Your task to perform on an android device: Open internet settings Image 0: 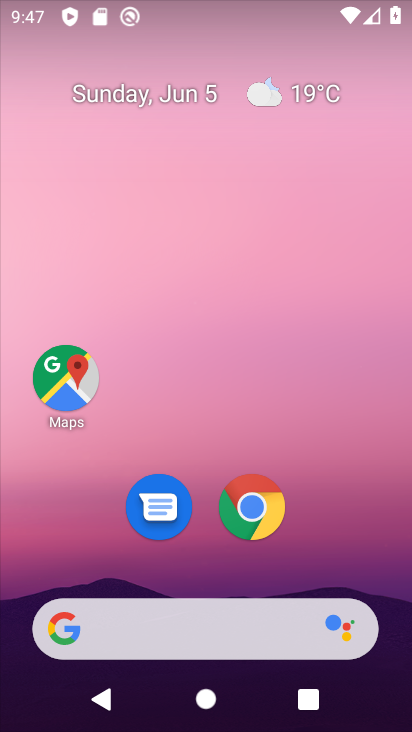
Step 0: drag from (235, 18) to (131, 443)
Your task to perform on an android device: Open internet settings Image 1: 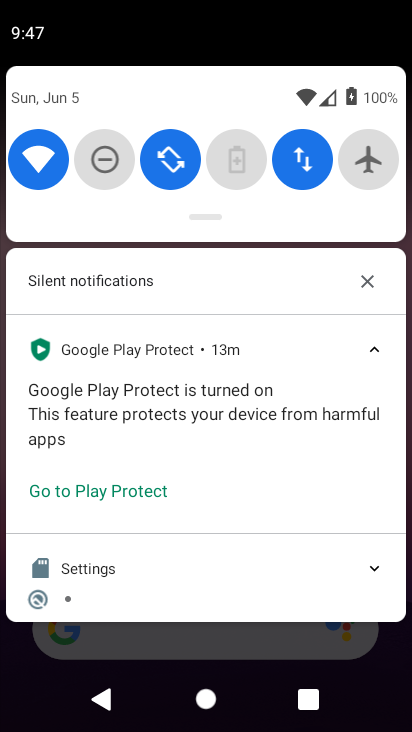
Step 1: click (304, 160)
Your task to perform on an android device: Open internet settings Image 2: 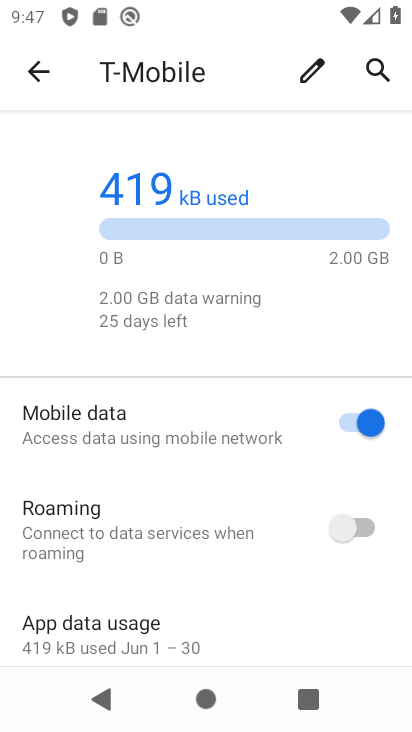
Step 2: task complete